Your task to perform on an android device: Play the last video I watched on Youtube Image 0: 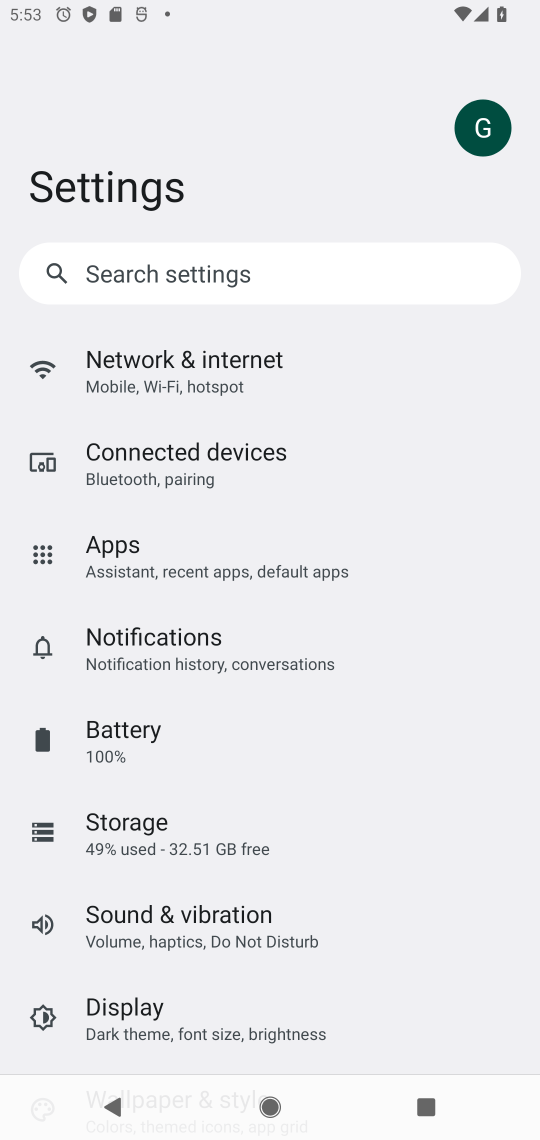
Step 0: press home button
Your task to perform on an android device: Play the last video I watched on Youtube Image 1: 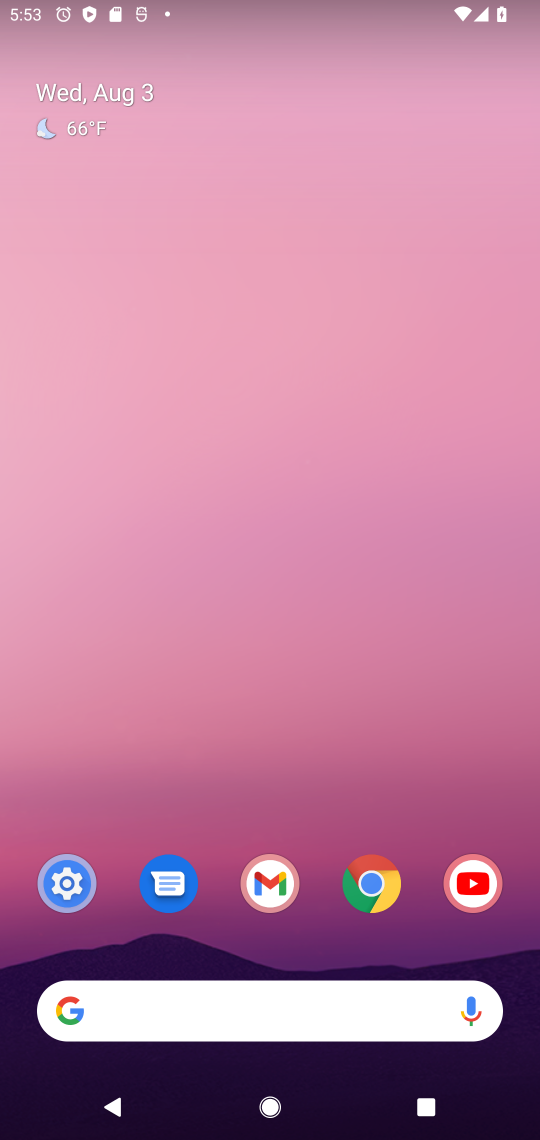
Step 1: click (456, 894)
Your task to perform on an android device: Play the last video I watched on Youtube Image 2: 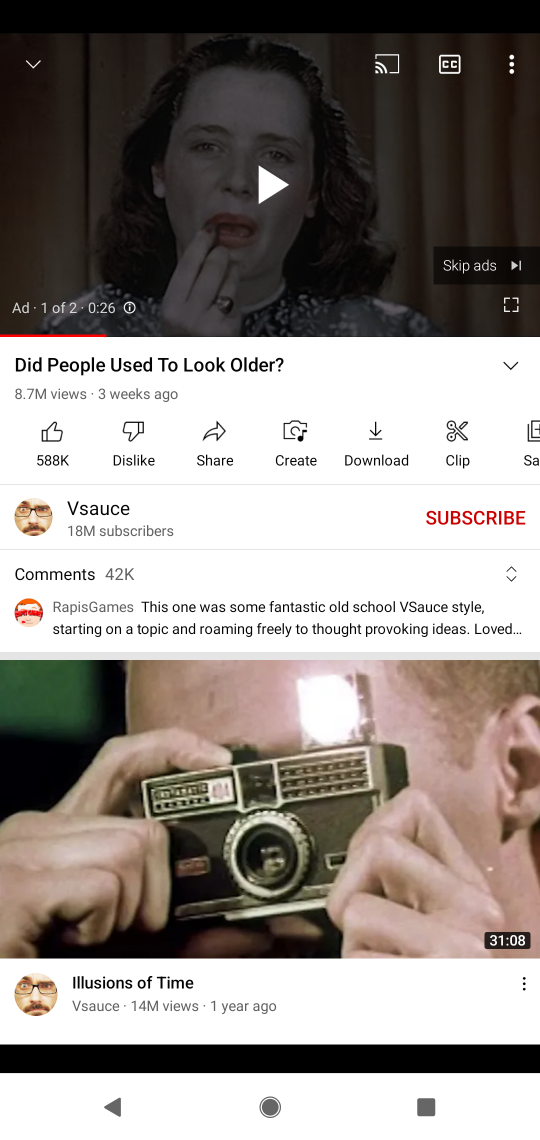
Step 2: click (469, 263)
Your task to perform on an android device: Play the last video I watched on Youtube Image 3: 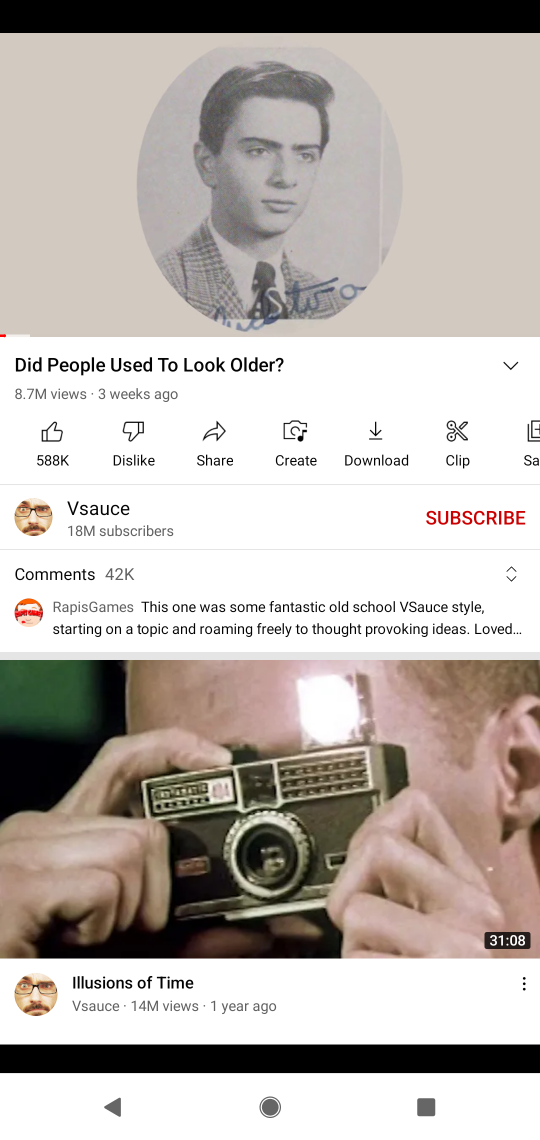
Step 3: task complete